Your task to perform on an android device: Open the Play Movies app and select the watchlist tab. Image 0: 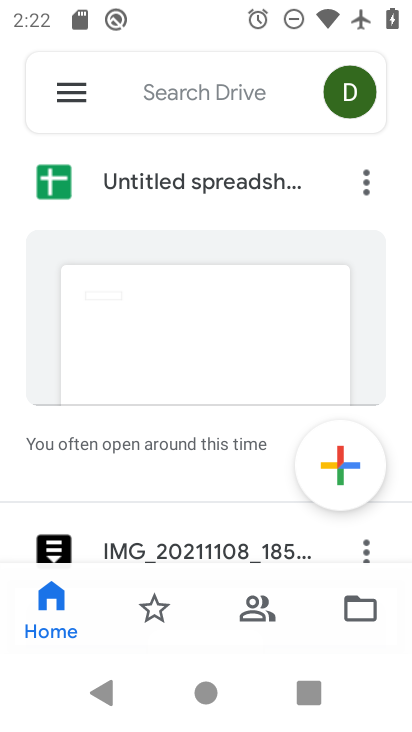
Step 0: press home button
Your task to perform on an android device: Open the Play Movies app and select the watchlist tab. Image 1: 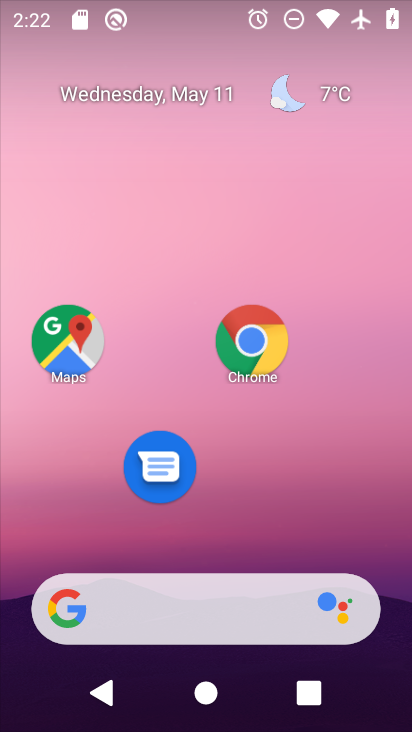
Step 1: drag from (176, 614) to (282, 104)
Your task to perform on an android device: Open the Play Movies app and select the watchlist tab. Image 2: 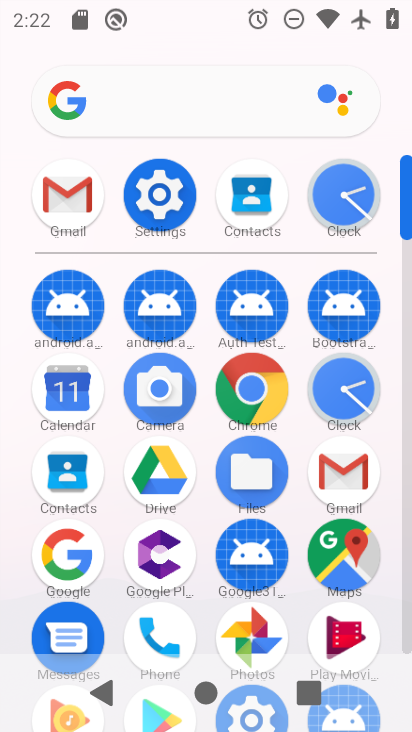
Step 2: click (346, 641)
Your task to perform on an android device: Open the Play Movies app and select the watchlist tab. Image 3: 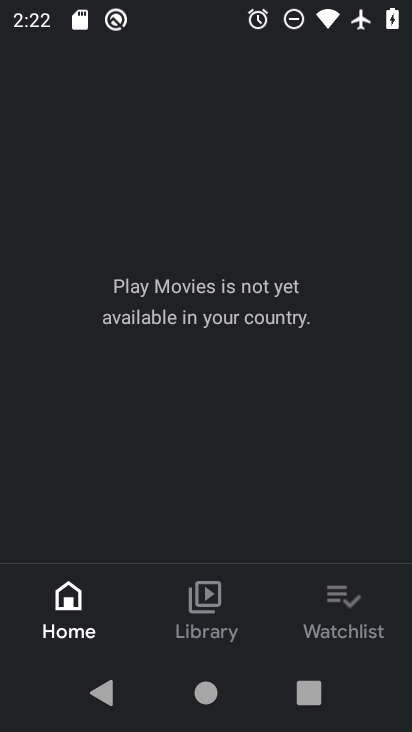
Step 3: click (349, 638)
Your task to perform on an android device: Open the Play Movies app and select the watchlist tab. Image 4: 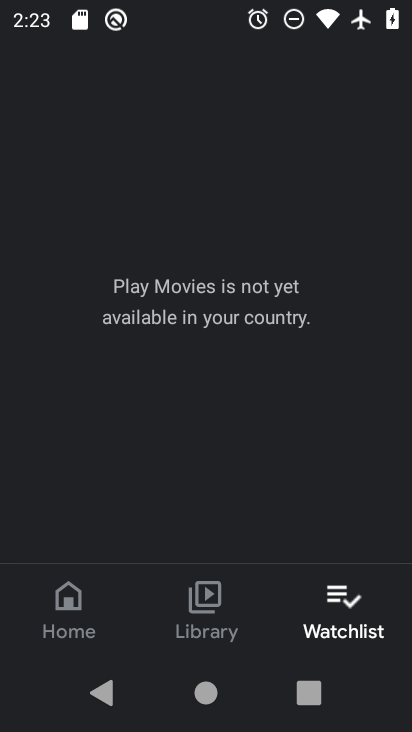
Step 4: task complete